Your task to perform on an android device: clear history in the chrome app Image 0: 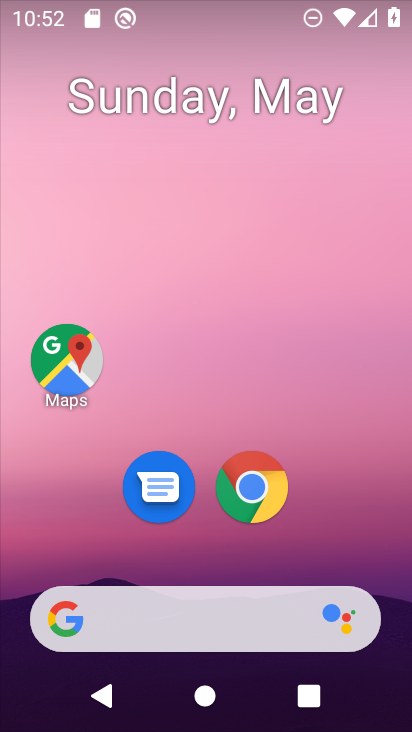
Step 0: click (248, 491)
Your task to perform on an android device: clear history in the chrome app Image 1: 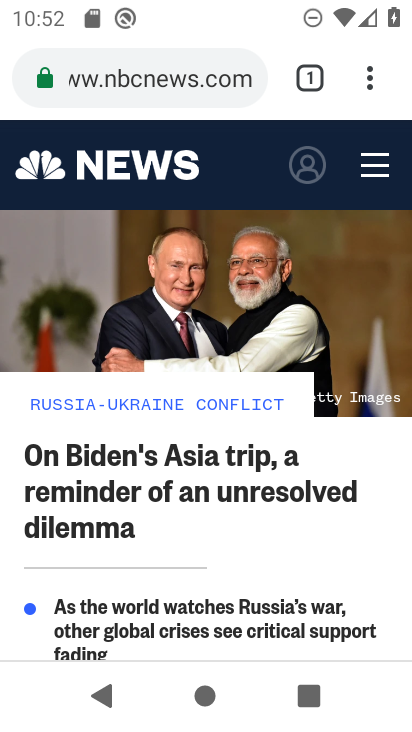
Step 1: click (378, 65)
Your task to perform on an android device: clear history in the chrome app Image 2: 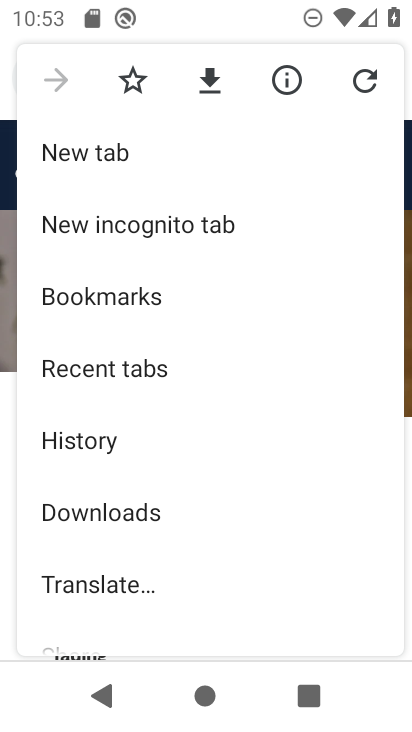
Step 2: click (192, 449)
Your task to perform on an android device: clear history in the chrome app Image 3: 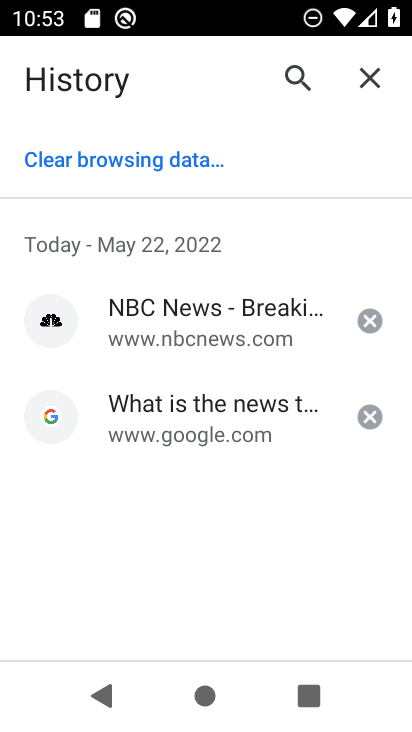
Step 3: click (175, 164)
Your task to perform on an android device: clear history in the chrome app Image 4: 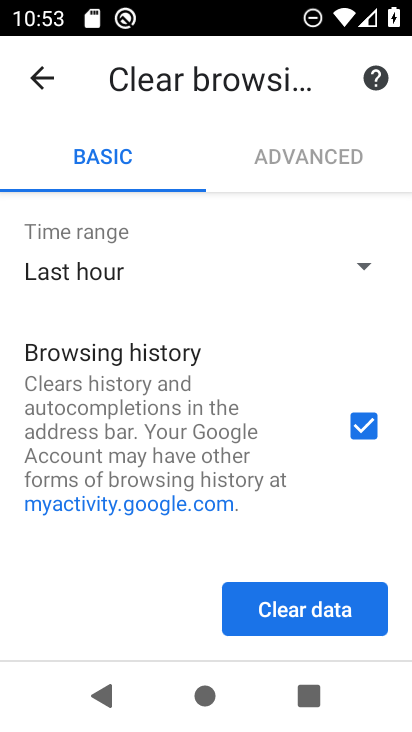
Step 4: click (295, 608)
Your task to perform on an android device: clear history in the chrome app Image 5: 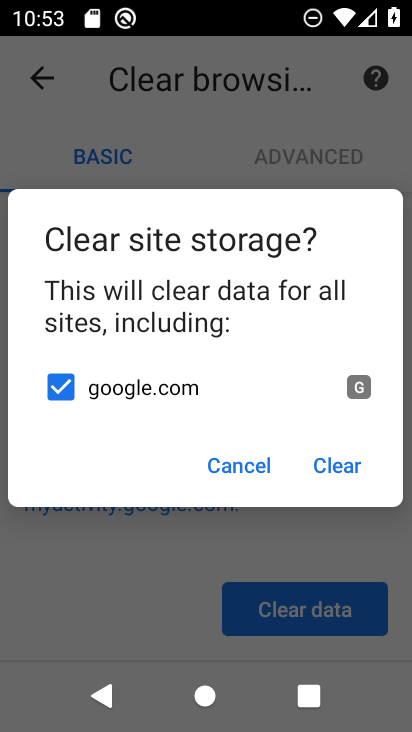
Step 5: click (350, 483)
Your task to perform on an android device: clear history in the chrome app Image 6: 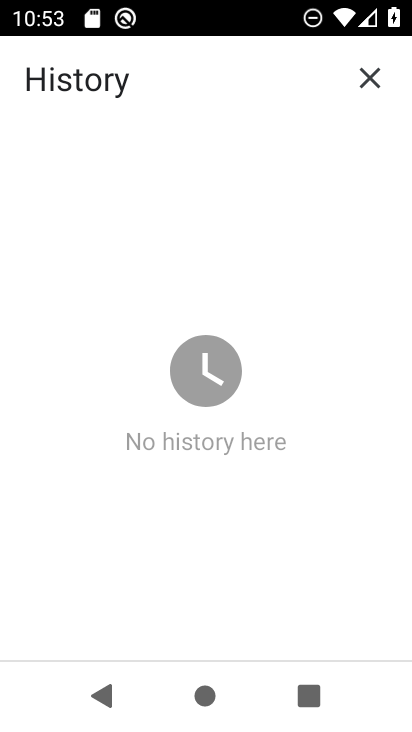
Step 6: task complete